Your task to perform on an android device: Show me popular games on the Play Store Image 0: 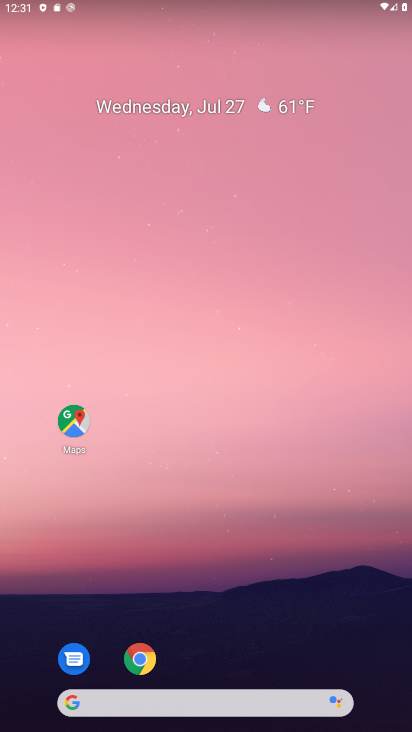
Step 0: drag from (205, 670) to (186, 173)
Your task to perform on an android device: Show me popular games on the Play Store Image 1: 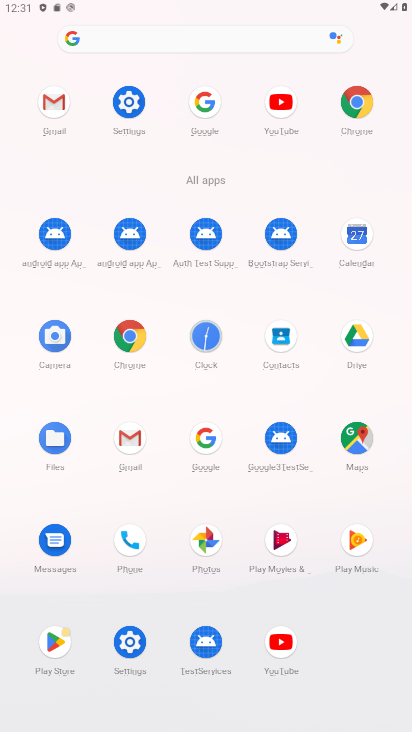
Step 1: click (62, 653)
Your task to perform on an android device: Show me popular games on the Play Store Image 2: 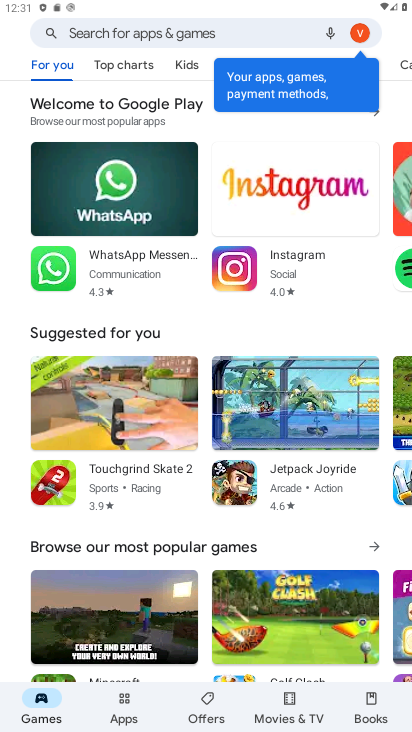
Step 2: click (135, 57)
Your task to perform on an android device: Show me popular games on the Play Store Image 3: 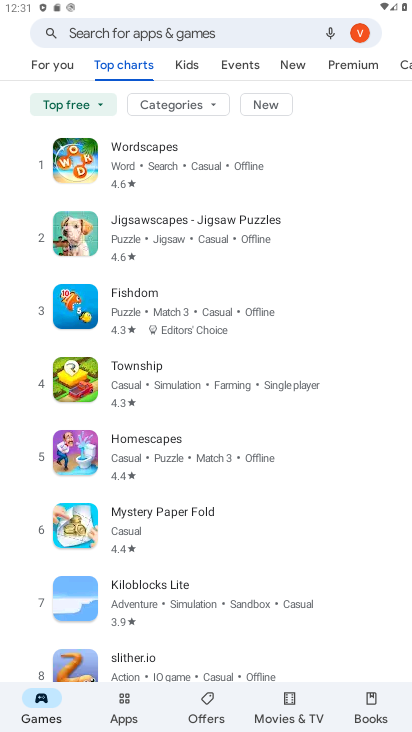
Step 3: task complete